Your task to perform on an android device: Go to settings Image 0: 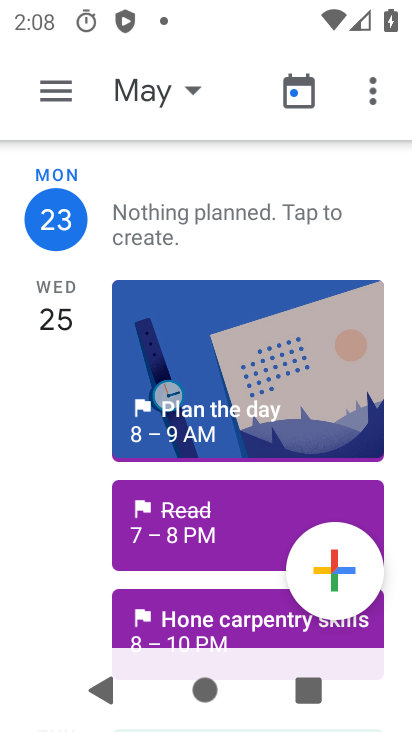
Step 0: press home button
Your task to perform on an android device: Go to settings Image 1: 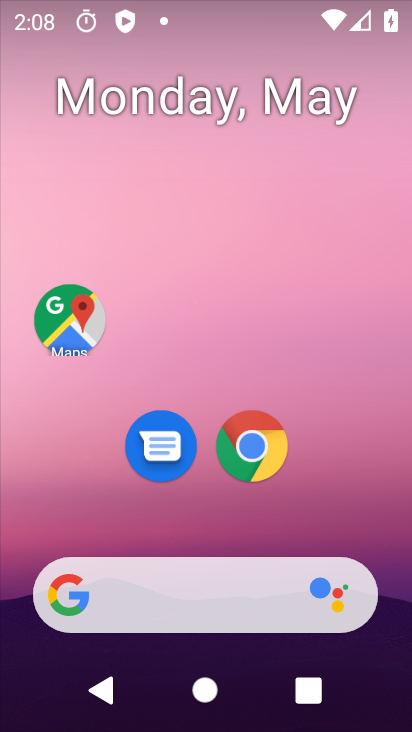
Step 1: drag from (196, 569) to (246, 113)
Your task to perform on an android device: Go to settings Image 2: 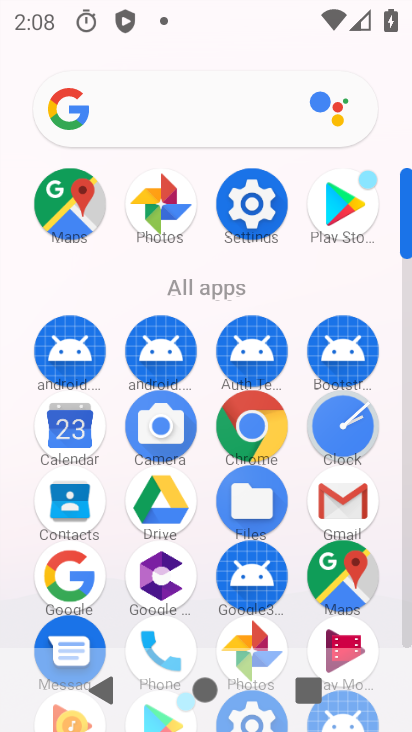
Step 2: click (258, 206)
Your task to perform on an android device: Go to settings Image 3: 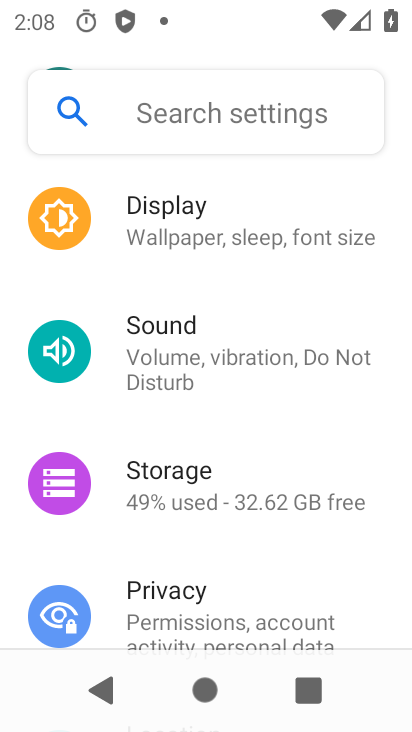
Step 3: task complete